Your task to perform on an android device: What is the recent news? Image 0: 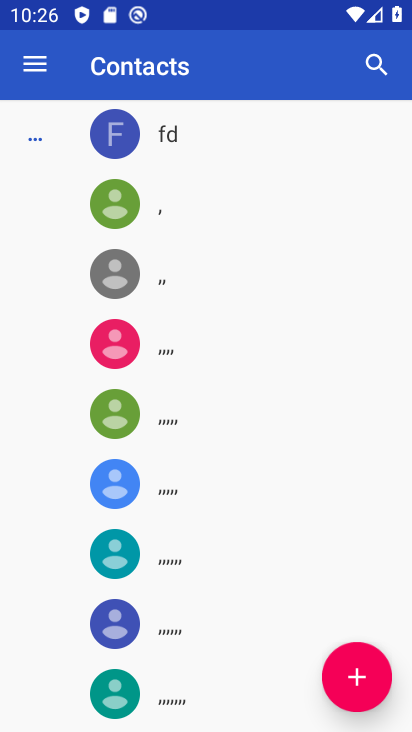
Step 0: press home button
Your task to perform on an android device: What is the recent news? Image 1: 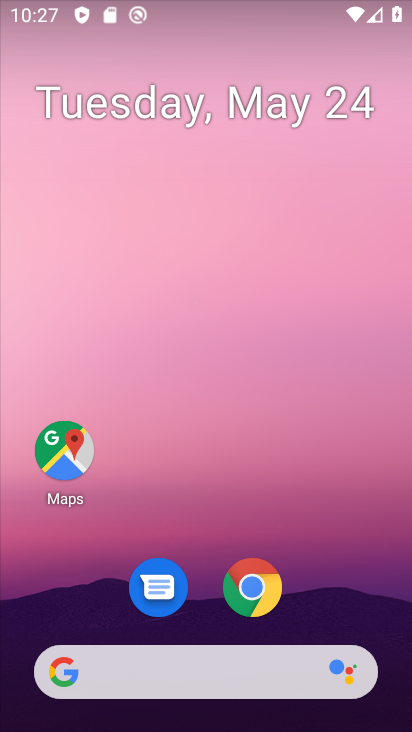
Step 1: click (275, 585)
Your task to perform on an android device: What is the recent news? Image 2: 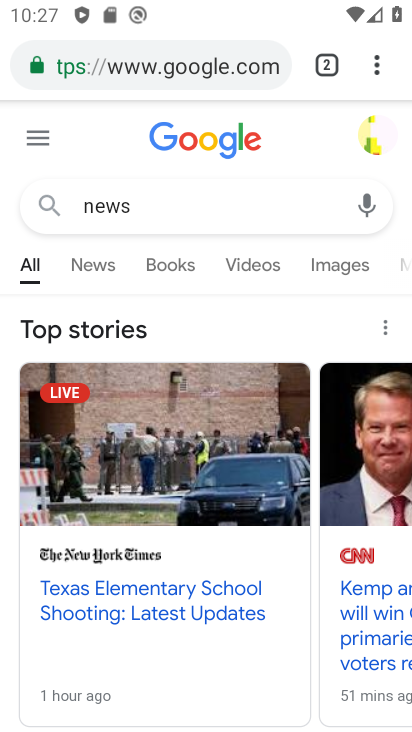
Step 2: click (272, 73)
Your task to perform on an android device: What is the recent news? Image 3: 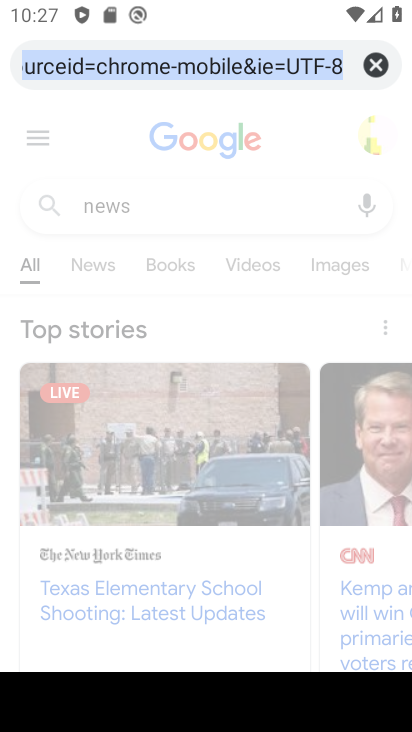
Step 3: click (371, 64)
Your task to perform on an android device: What is the recent news? Image 4: 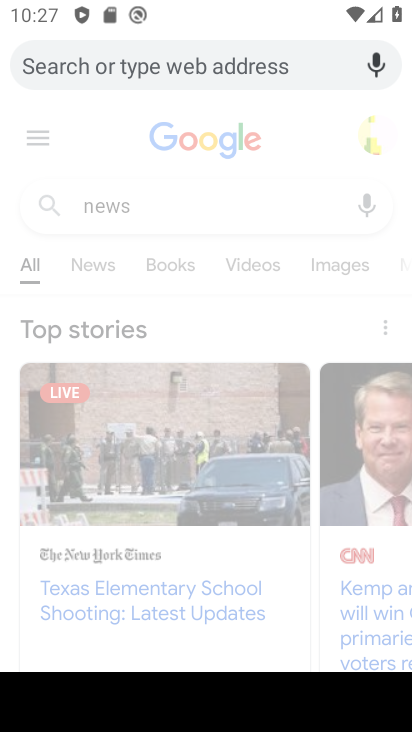
Step 4: type "What is the recent news?"
Your task to perform on an android device: What is the recent news? Image 5: 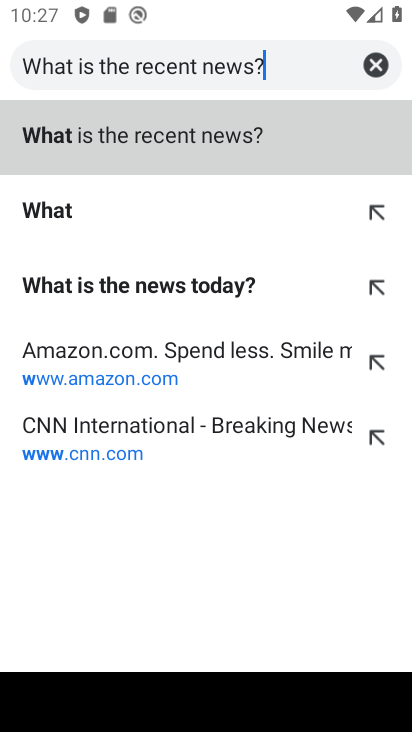
Step 5: type ""
Your task to perform on an android device: What is the recent news? Image 6: 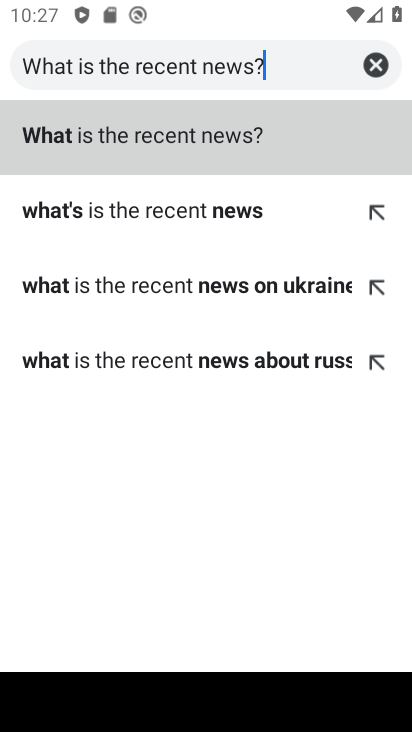
Step 6: click (75, 146)
Your task to perform on an android device: What is the recent news? Image 7: 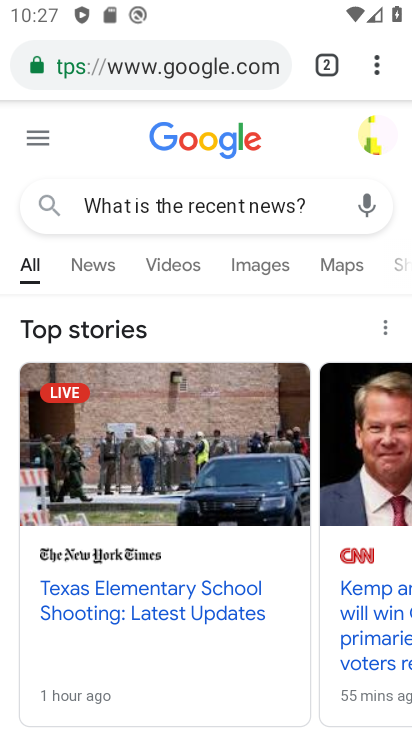
Step 7: task complete